Your task to perform on an android device: Show me the alarms in the clock app Image 0: 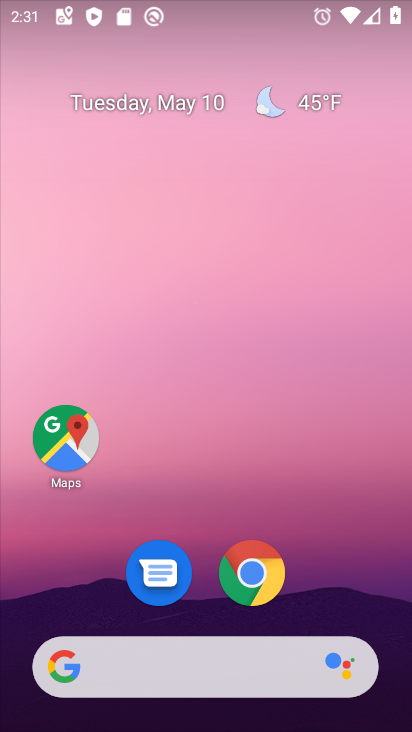
Step 0: drag from (156, 715) to (88, 83)
Your task to perform on an android device: Show me the alarms in the clock app Image 1: 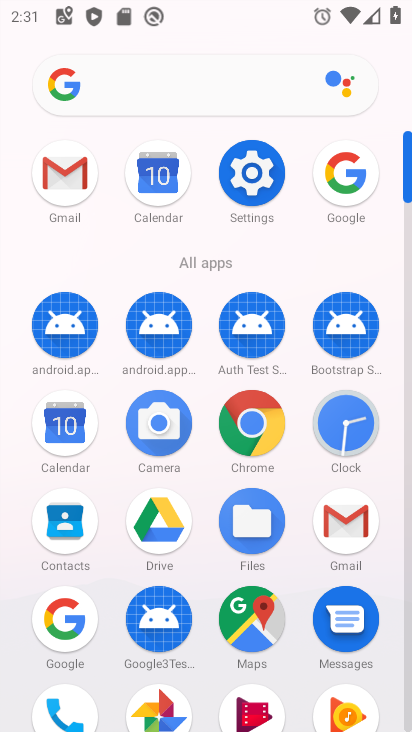
Step 1: click (337, 419)
Your task to perform on an android device: Show me the alarms in the clock app Image 2: 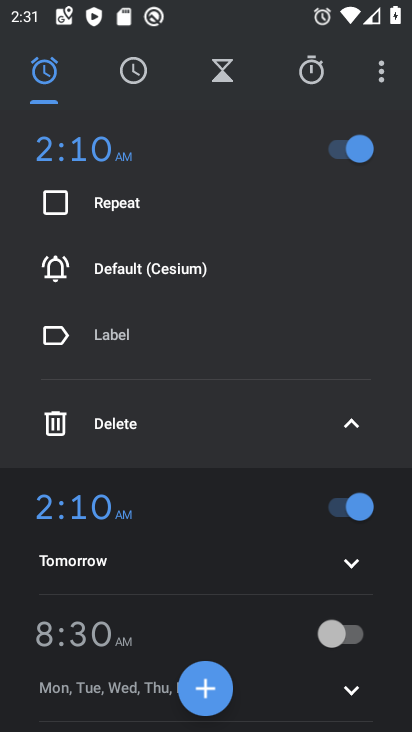
Step 2: click (209, 691)
Your task to perform on an android device: Show me the alarms in the clock app Image 3: 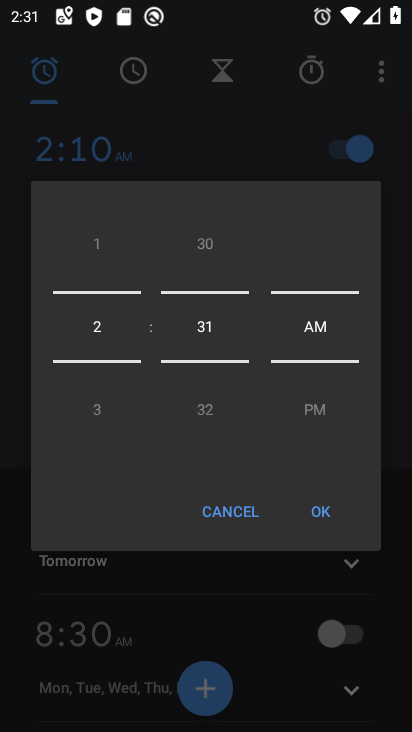
Step 3: click (313, 515)
Your task to perform on an android device: Show me the alarms in the clock app Image 4: 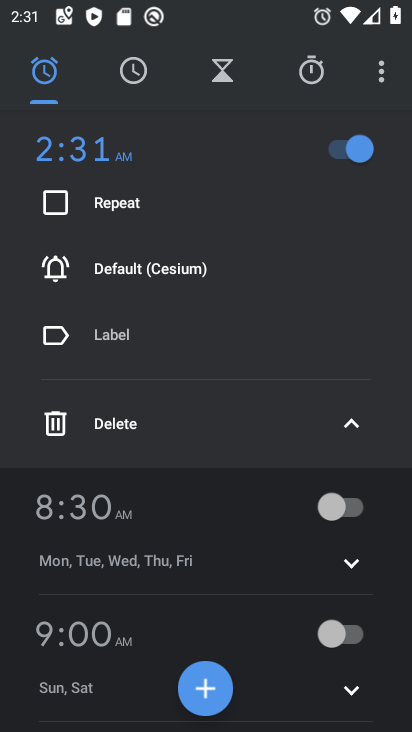
Step 4: task complete